Your task to perform on an android device: turn on wifi Image 0: 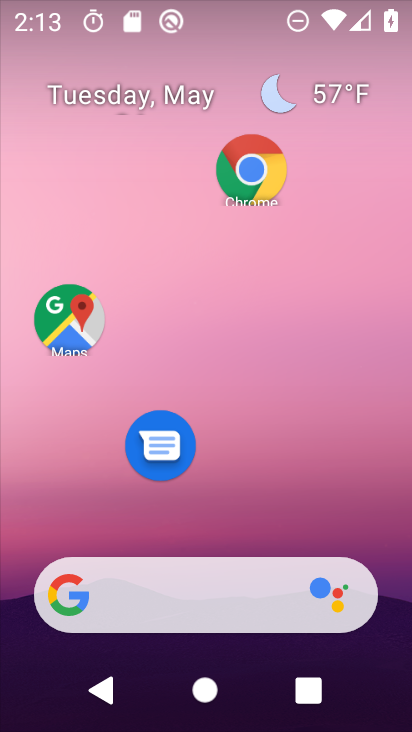
Step 0: drag from (223, 719) to (224, 117)
Your task to perform on an android device: turn on wifi Image 1: 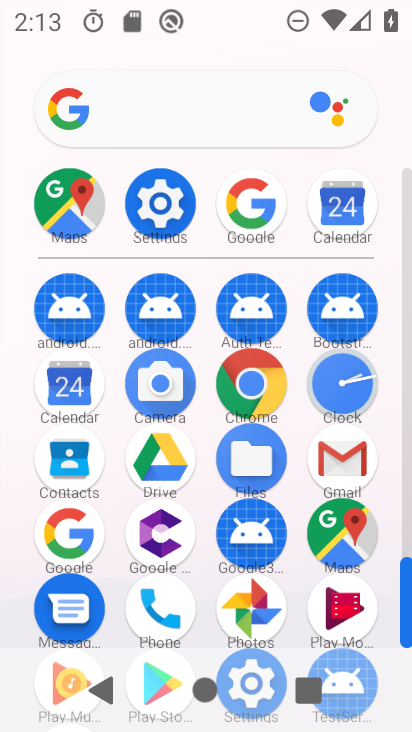
Step 1: click (164, 209)
Your task to perform on an android device: turn on wifi Image 2: 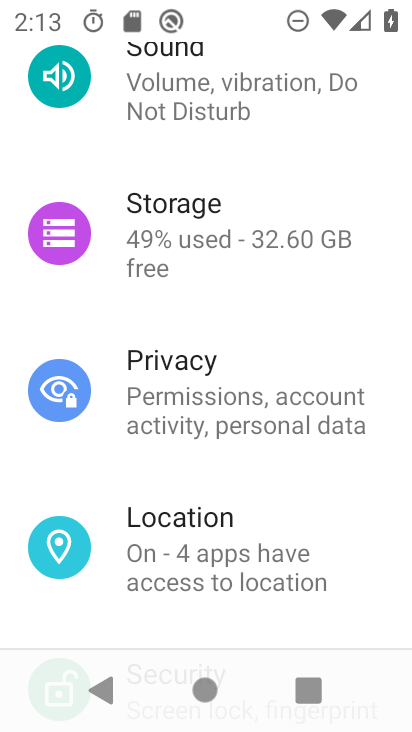
Step 2: drag from (335, 147) to (367, 563)
Your task to perform on an android device: turn on wifi Image 3: 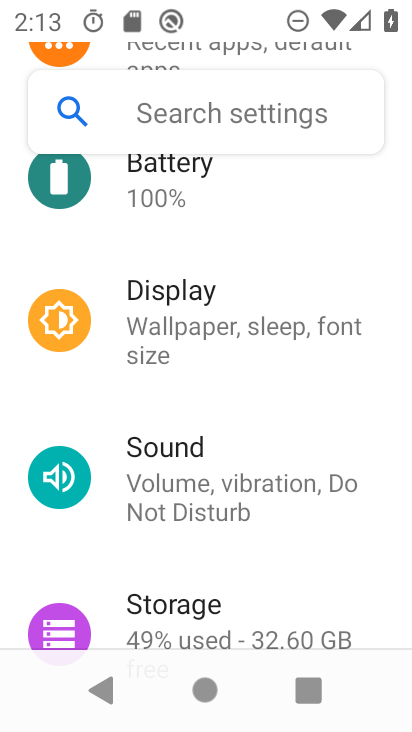
Step 3: drag from (275, 191) to (321, 633)
Your task to perform on an android device: turn on wifi Image 4: 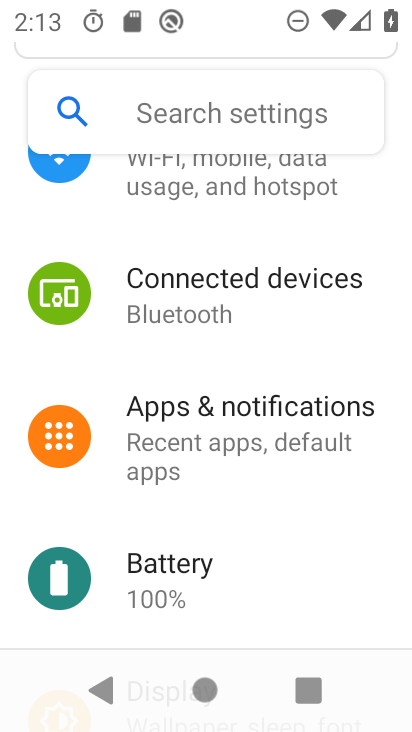
Step 4: drag from (261, 215) to (298, 599)
Your task to perform on an android device: turn on wifi Image 5: 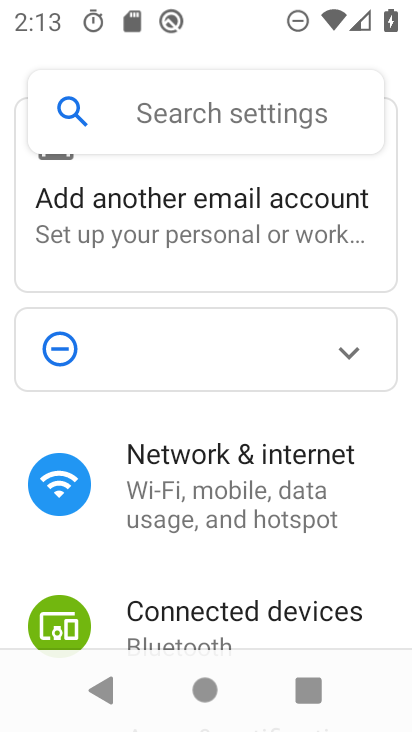
Step 5: click (193, 490)
Your task to perform on an android device: turn on wifi Image 6: 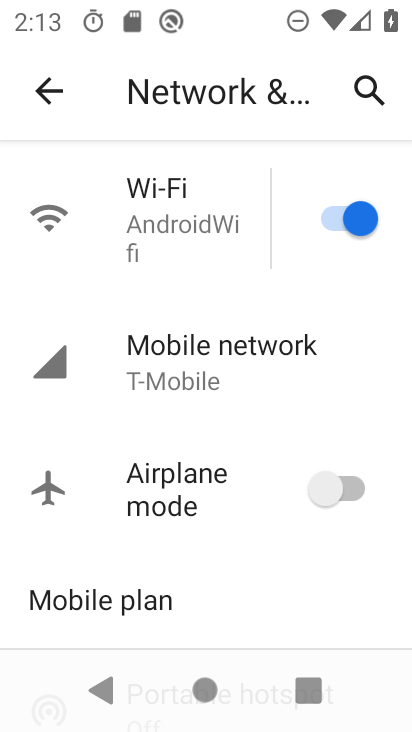
Step 6: task complete